Your task to perform on an android device: toggle notifications settings in the gmail app Image 0: 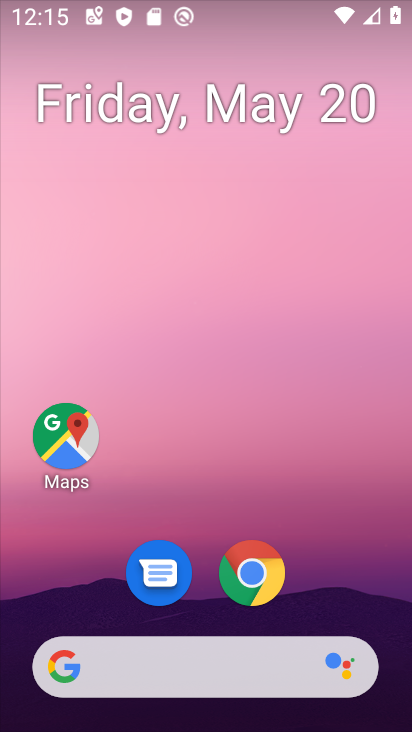
Step 0: drag from (344, 445) to (360, 72)
Your task to perform on an android device: toggle notifications settings in the gmail app Image 1: 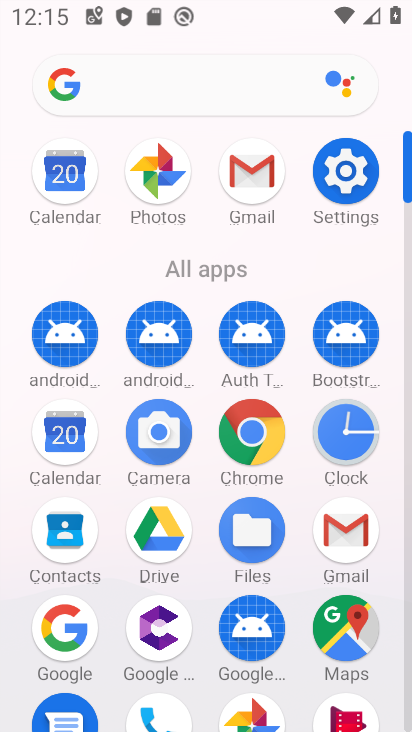
Step 1: click (251, 172)
Your task to perform on an android device: toggle notifications settings in the gmail app Image 2: 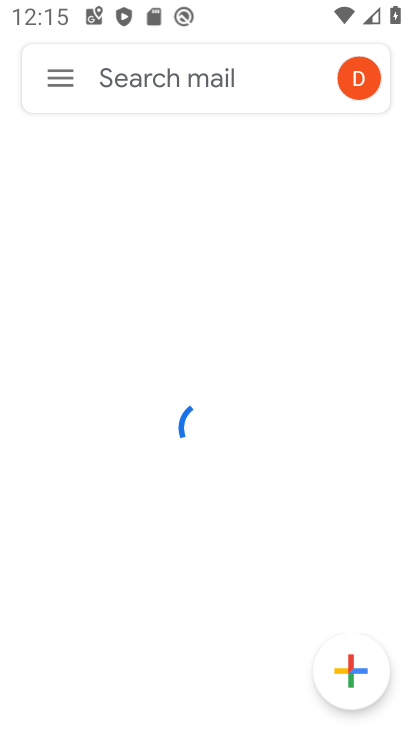
Step 2: click (74, 83)
Your task to perform on an android device: toggle notifications settings in the gmail app Image 3: 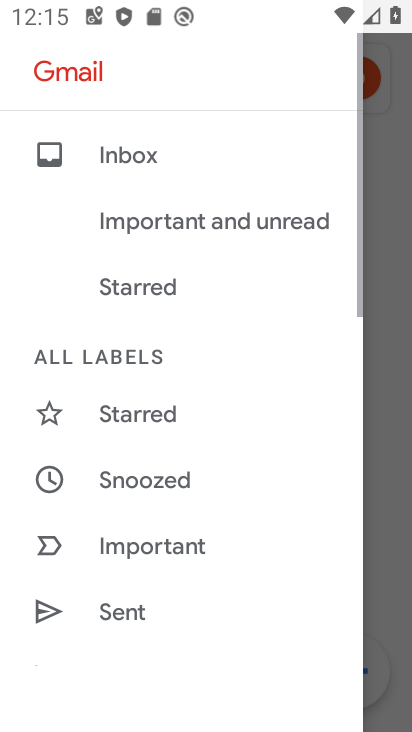
Step 3: drag from (228, 598) to (285, 143)
Your task to perform on an android device: toggle notifications settings in the gmail app Image 4: 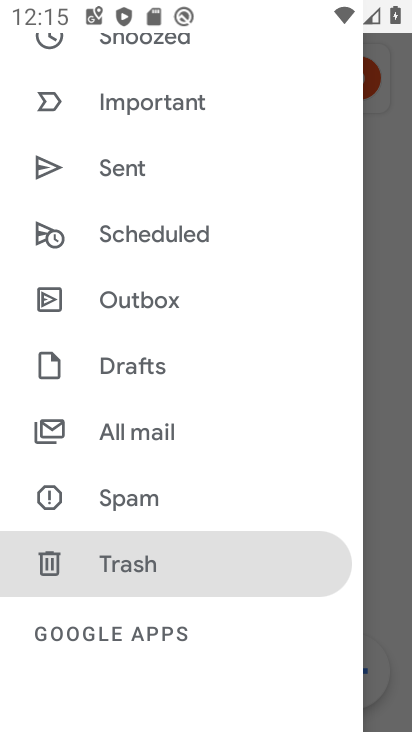
Step 4: drag from (207, 603) to (219, 235)
Your task to perform on an android device: toggle notifications settings in the gmail app Image 5: 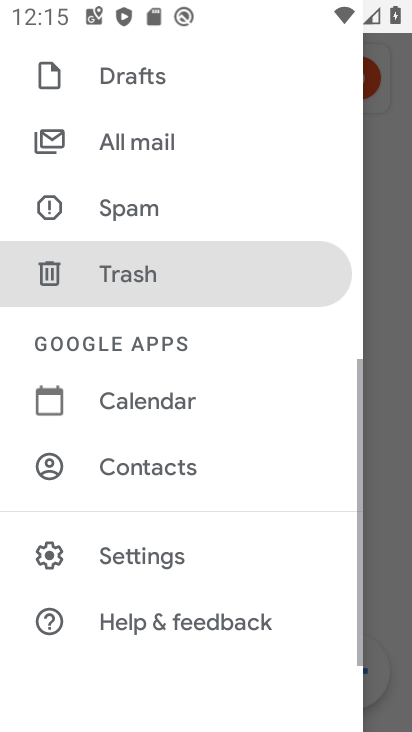
Step 5: click (164, 567)
Your task to perform on an android device: toggle notifications settings in the gmail app Image 6: 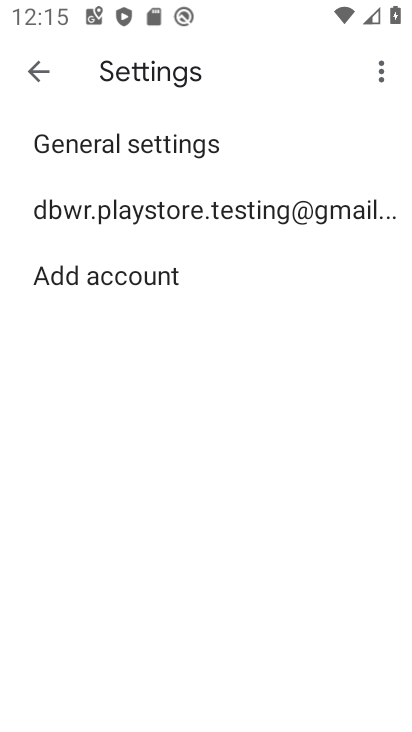
Step 6: click (155, 222)
Your task to perform on an android device: toggle notifications settings in the gmail app Image 7: 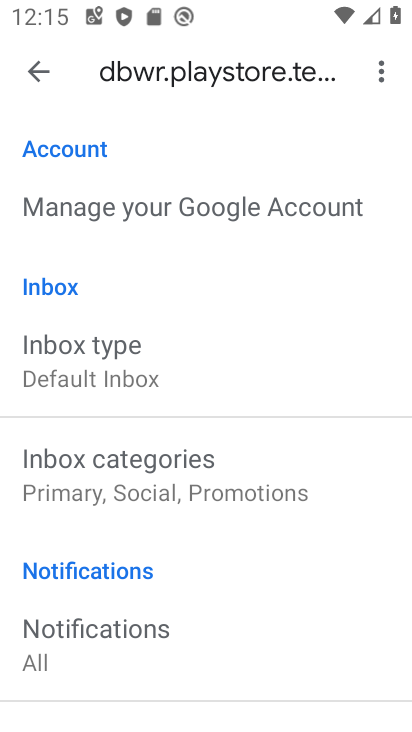
Step 7: drag from (242, 612) to (232, 332)
Your task to perform on an android device: toggle notifications settings in the gmail app Image 8: 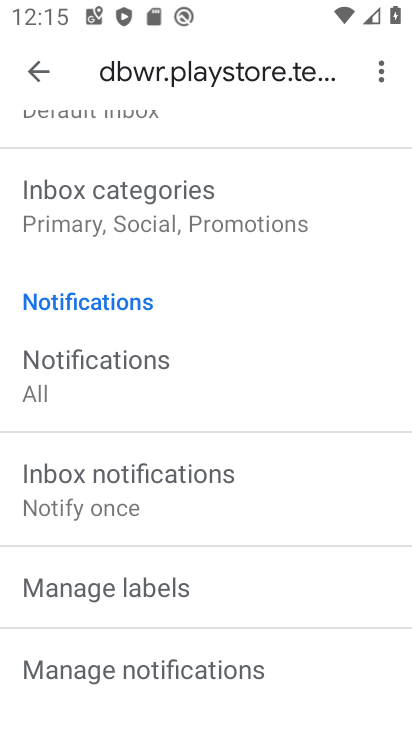
Step 8: click (108, 363)
Your task to perform on an android device: toggle notifications settings in the gmail app Image 9: 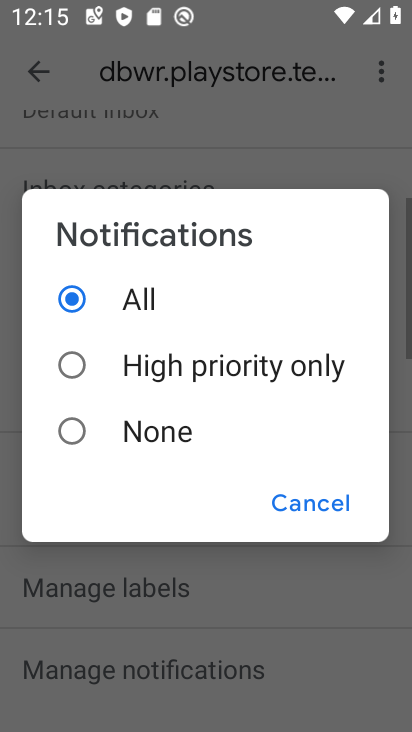
Step 9: click (89, 436)
Your task to perform on an android device: toggle notifications settings in the gmail app Image 10: 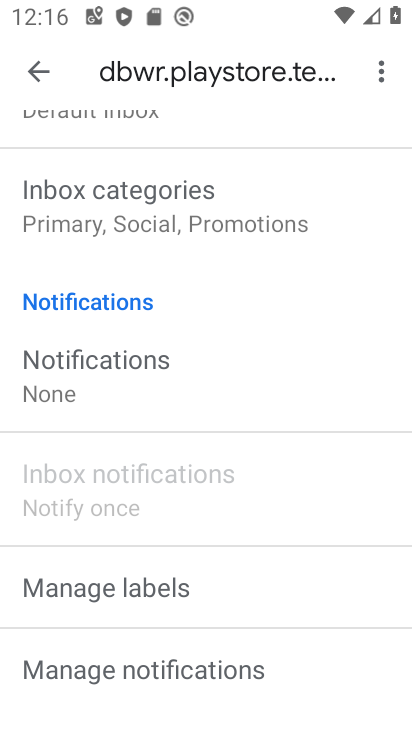
Step 10: task complete